Your task to perform on an android device: toggle wifi Image 0: 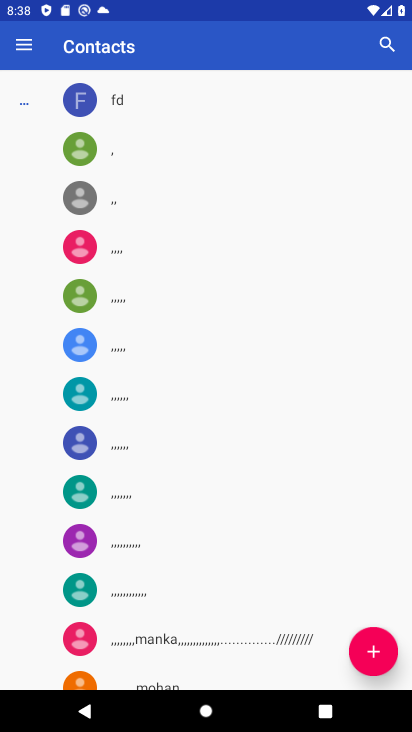
Step 0: press home button
Your task to perform on an android device: toggle wifi Image 1: 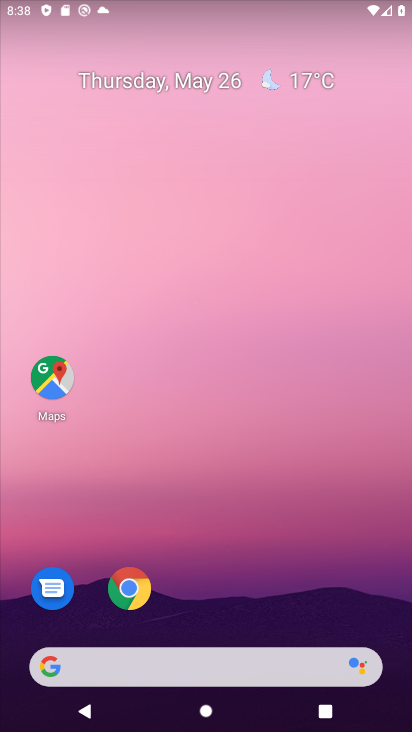
Step 1: drag from (354, 599) to (313, 15)
Your task to perform on an android device: toggle wifi Image 2: 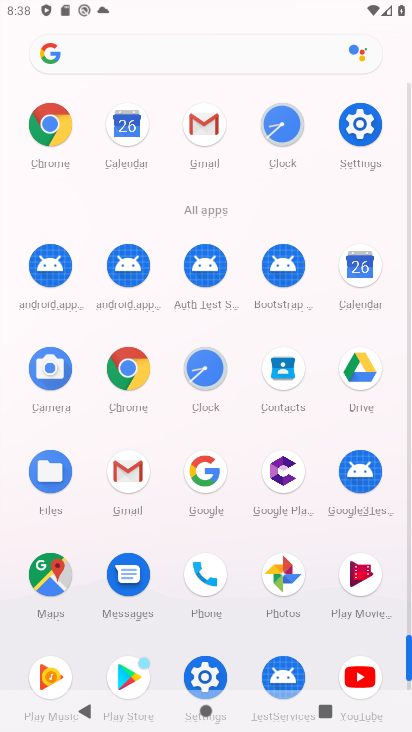
Step 2: click (206, 675)
Your task to perform on an android device: toggle wifi Image 3: 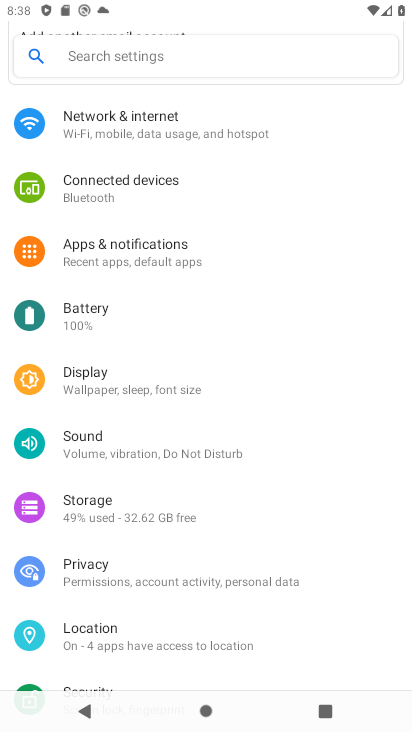
Step 3: click (120, 117)
Your task to perform on an android device: toggle wifi Image 4: 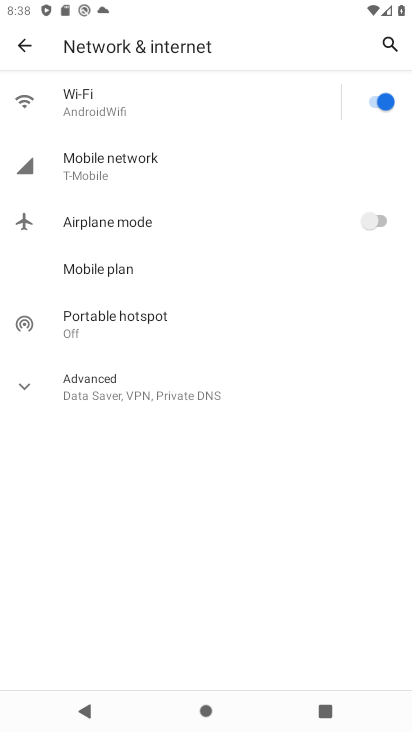
Step 4: click (369, 101)
Your task to perform on an android device: toggle wifi Image 5: 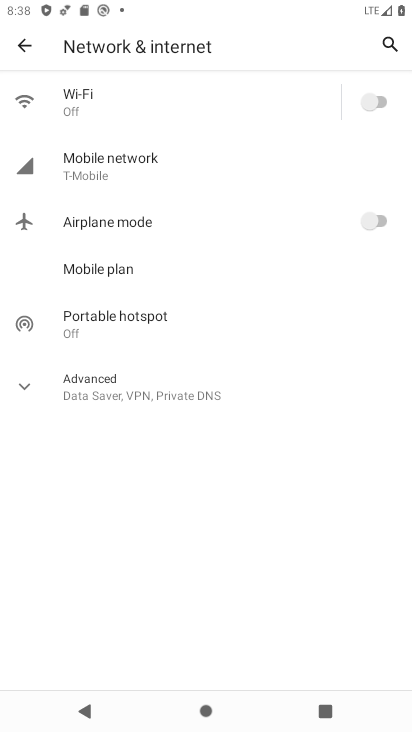
Step 5: task complete